Your task to perform on an android device: Open the stopwatch Image 0: 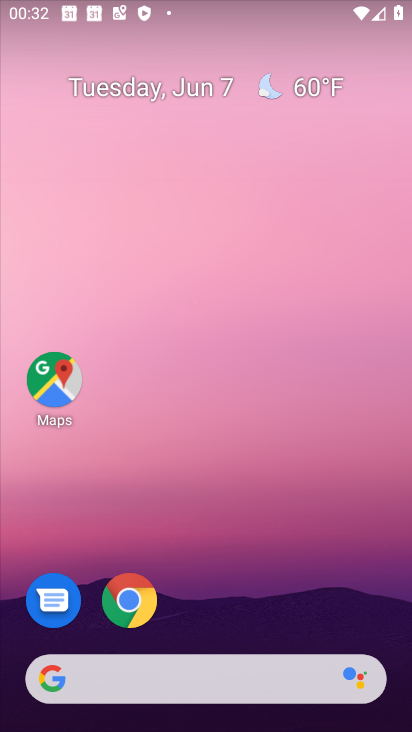
Step 0: drag from (227, 723) to (233, 54)
Your task to perform on an android device: Open the stopwatch Image 1: 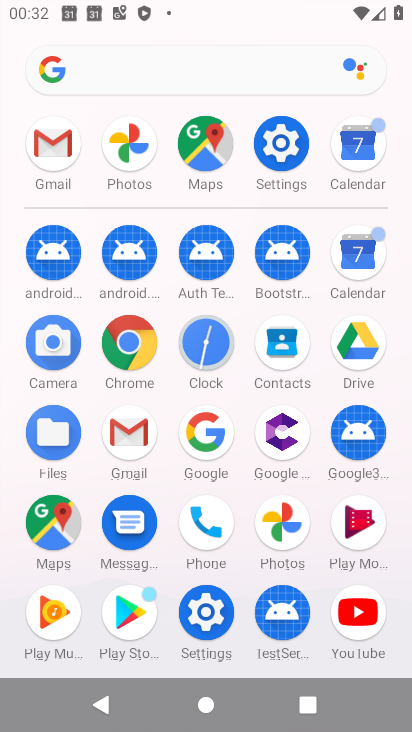
Step 1: click (209, 341)
Your task to perform on an android device: Open the stopwatch Image 2: 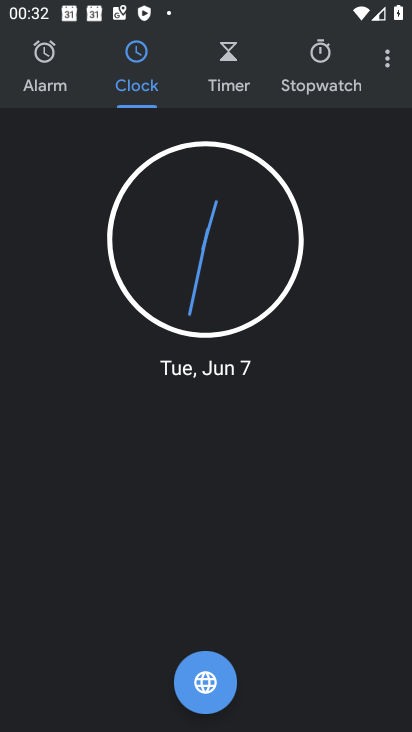
Step 2: click (325, 64)
Your task to perform on an android device: Open the stopwatch Image 3: 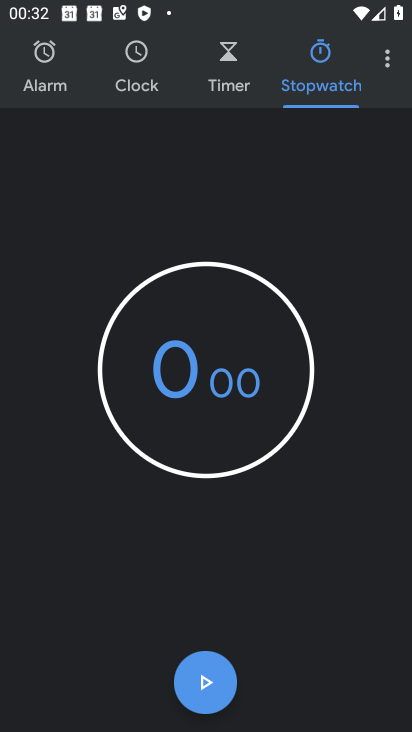
Step 3: task complete